Your task to perform on an android device: Open notification settings Image 0: 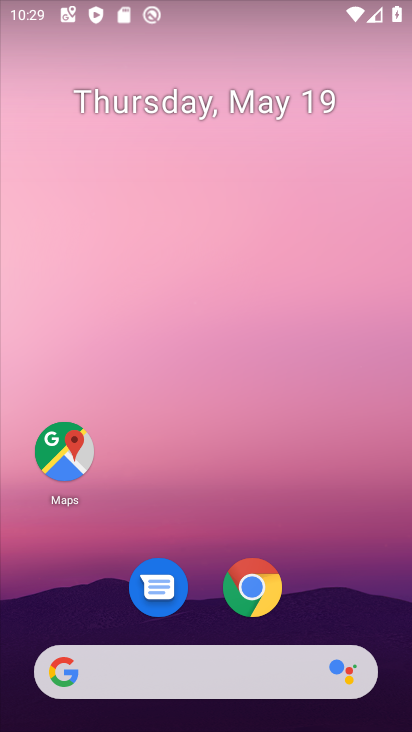
Step 0: drag from (303, 558) to (289, 119)
Your task to perform on an android device: Open notification settings Image 1: 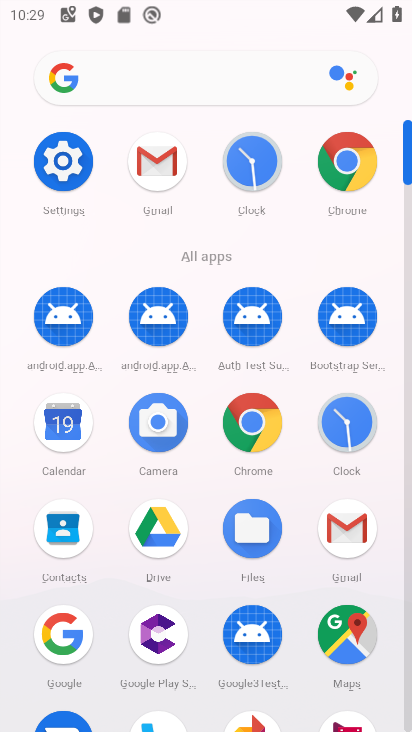
Step 1: click (73, 159)
Your task to perform on an android device: Open notification settings Image 2: 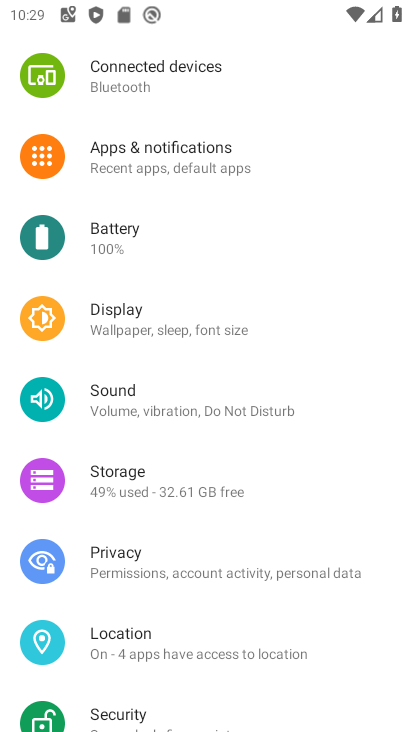
Step 2: drag from (334, 501) to (328, 180)
Your task to perform on an android device: Open notification settings Image 3: 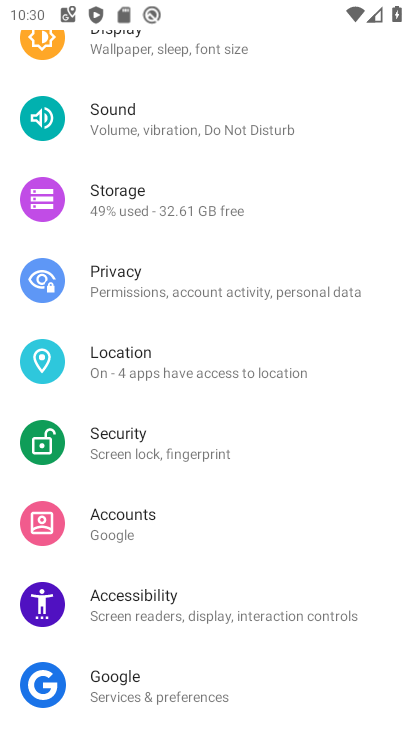
Step 3: drag from (297, 688) to (301, 355)
Your task to perform on an android device: Open notification settings Image 4: 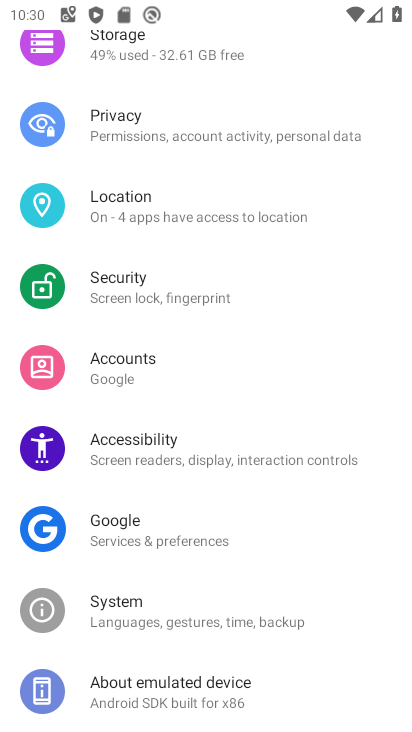
Step 4: drag from (266, 136) to (263, 663)
Your task to perform on an android device: Open notification settings Image 5: 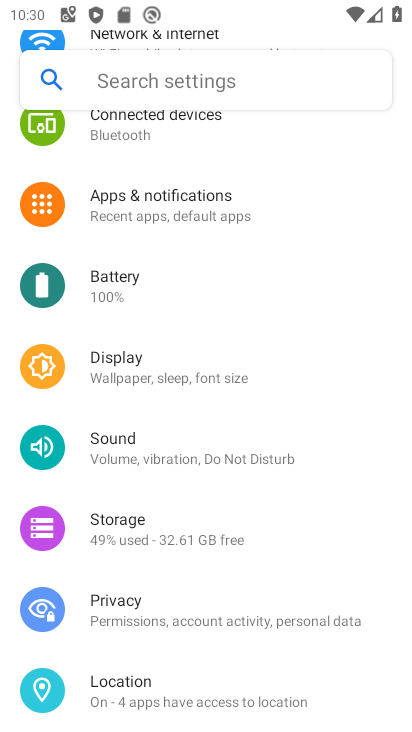
Step 5: click (215, 216)
Your task to perform on an android device: Open notification settings Image 6: 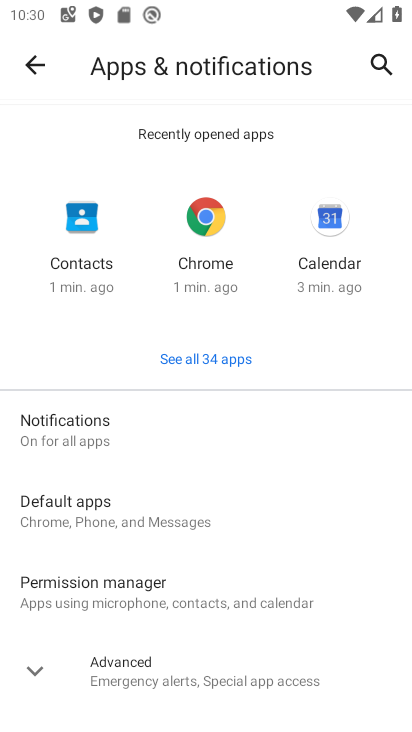
Step 6: click (101, 447)
Your task to perform on an android device: Open notification settings Image 7: 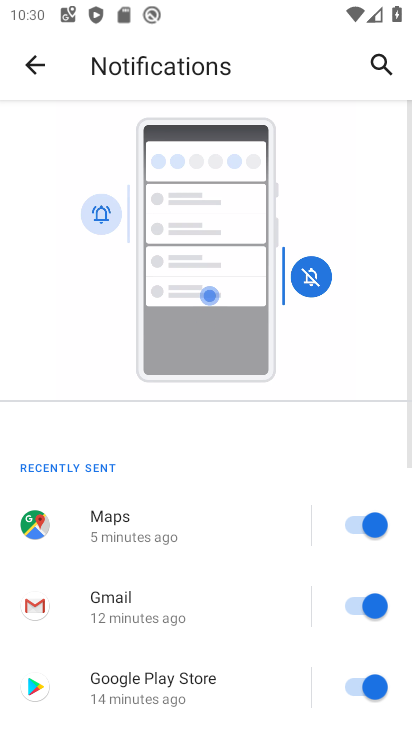
Step 7: drag from (284, 708) to (270, 267)
Your task to perform on an android device: Open notification settings Image 8: 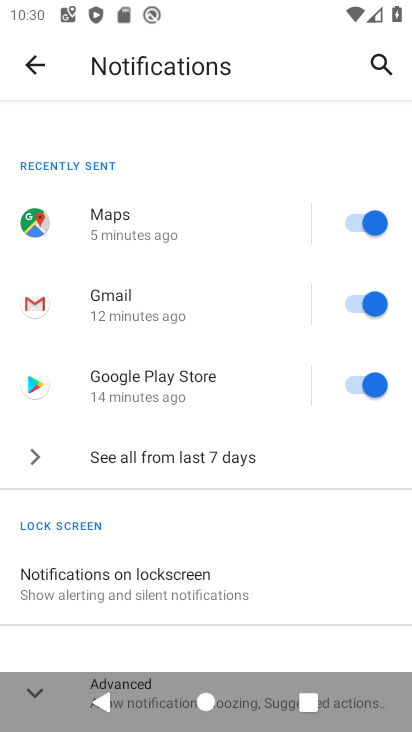
Step 8: click (190, 580)
Your task to perform on an android device: Open notification settings Image 9: 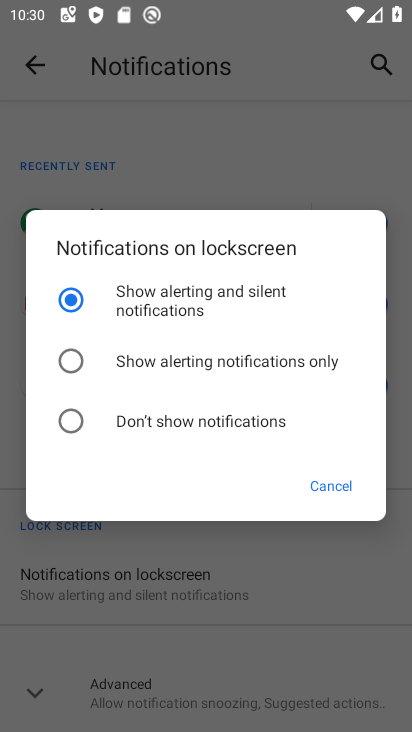
Step 9: click (357, 493)
Your task to perform on an android device: Open notification settings Image 10: 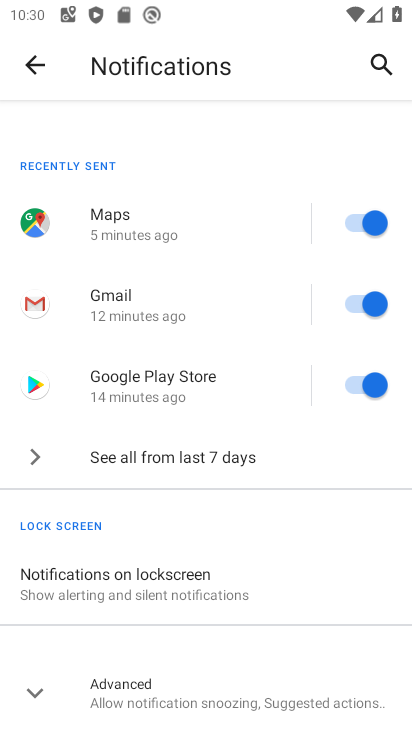
Step 10: task complete